Your task to perform on an android device: toggle javascript in the chrome app Image 0: 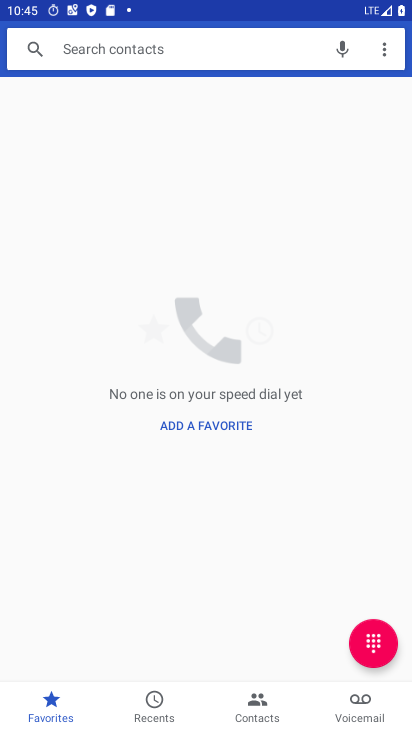
Step 0: press home button
Your task to perform on an android device: toggle javascript in the chrome app Image 1: 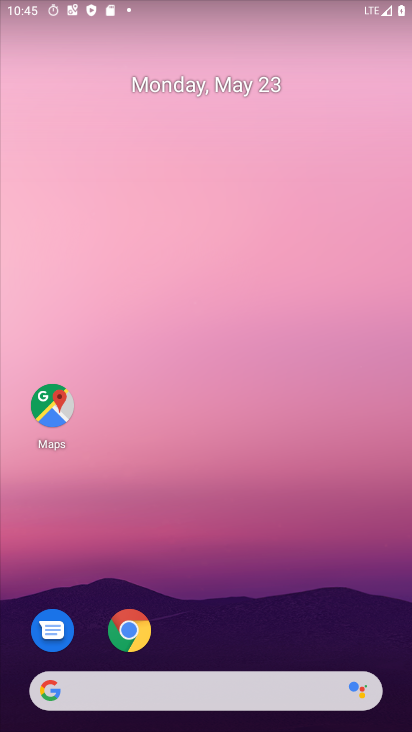
Step 1: click (130, 638)
Your task to perform on an android device: toggle javascript in the chrome app Image 2: 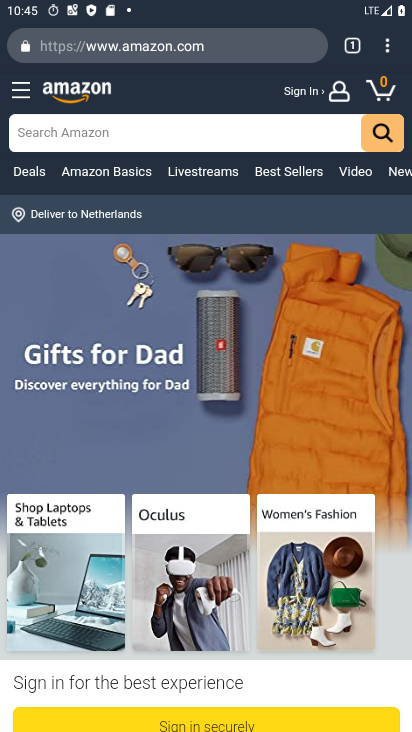
Step 2: click (388, 43)
Your task to perform on an android device: toggle javascript in the chrome app Image 3: 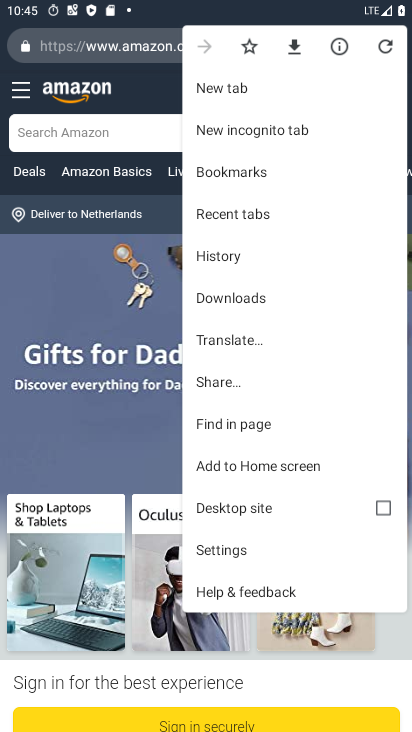
Step 3: click (241, 553)
Your task to perform on an android device: toggle javascript in the chrome app Image 4: 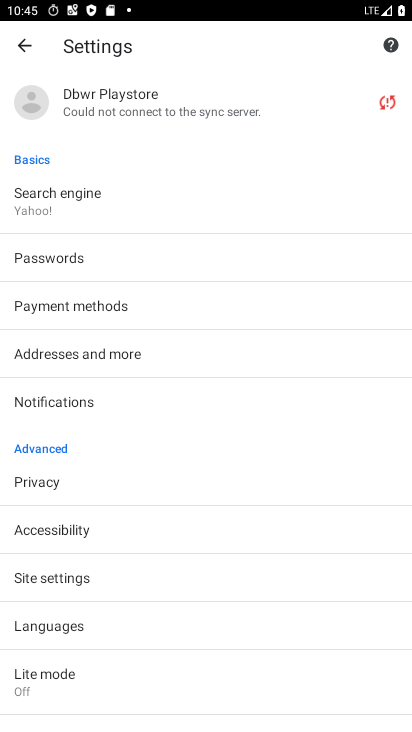
Step 4: click (44, 580)
Your task to perform on an android device: toggle javascript in the chrome app Image 5: 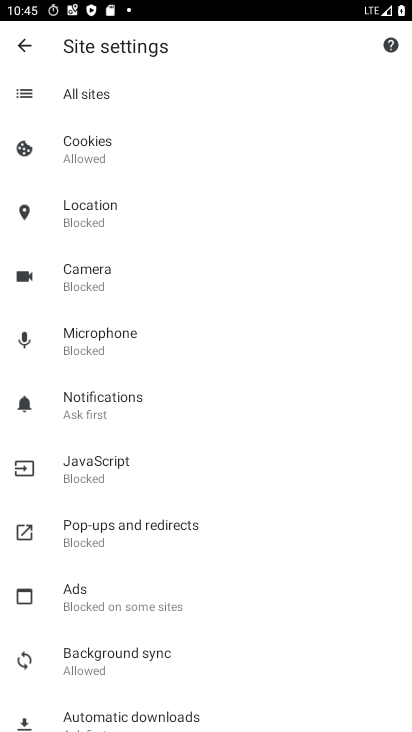
Step 5: click (94, 463)
Your task to perform on an android device: toggle javascript in the chrome app Image 6: 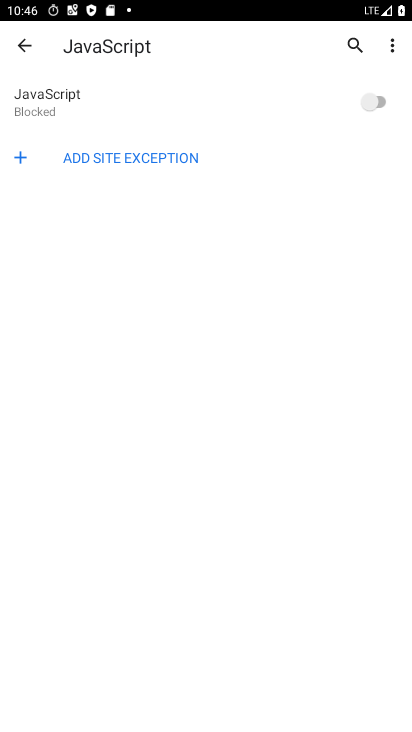
Step 6: click (376, 100)
Your task to perform on an android device: toggle javascript in the chrome app Image 7: 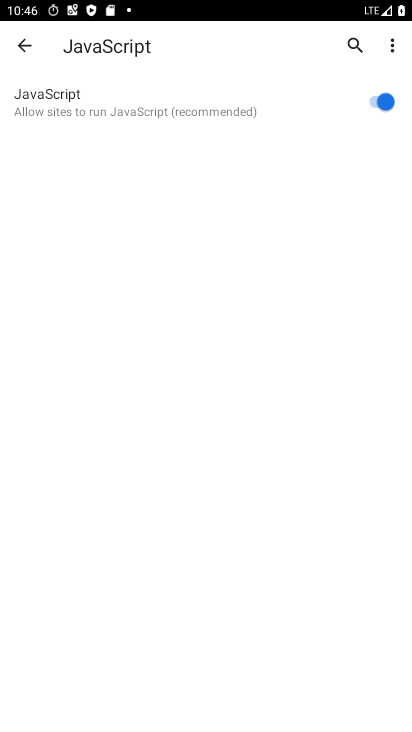
Step 7: task complete